Your task to perform on an android device: Open Yahoo.com Image 0: 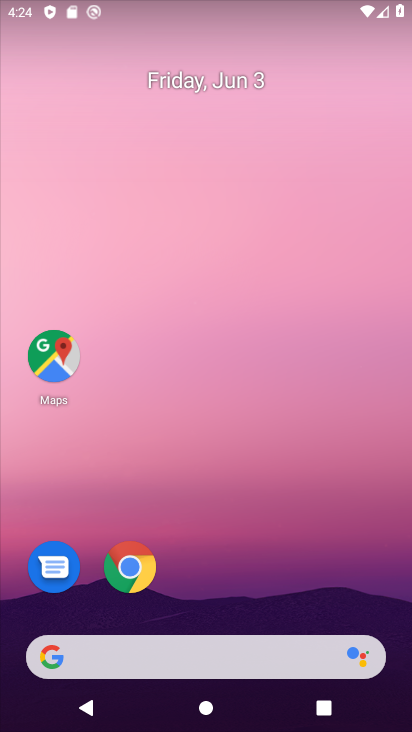
Step 0: click (131, 567)
Your task to perform on an android device: Open Yahoo.com Image 1: 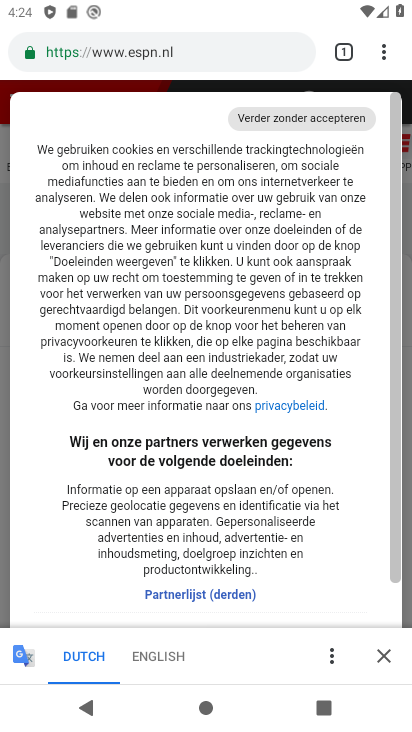
Step 1: click (206, 46)
Your task to perform on an android device: Open Yahoo.com Image 2: 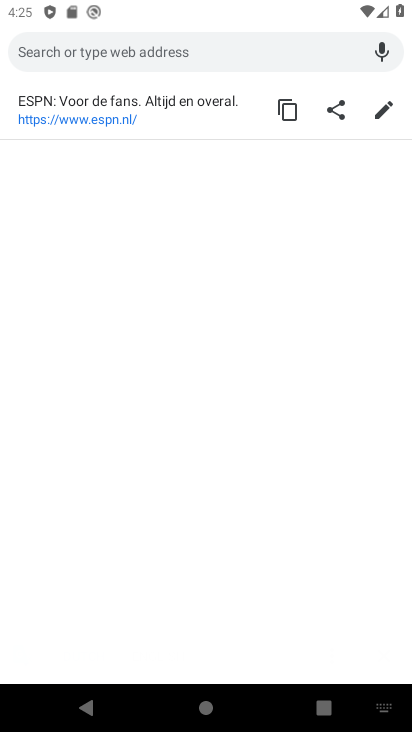
Step 2: type "Yahoo.com"
Your task to perform on an android device: Open Yahoo.com Image 3: 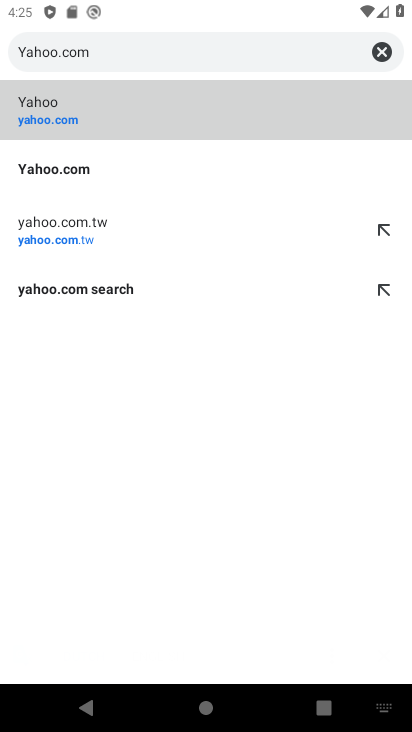
Step 3: click (78, 175)
Your task to perform on an android device: Open Yahoo.com Image 4: 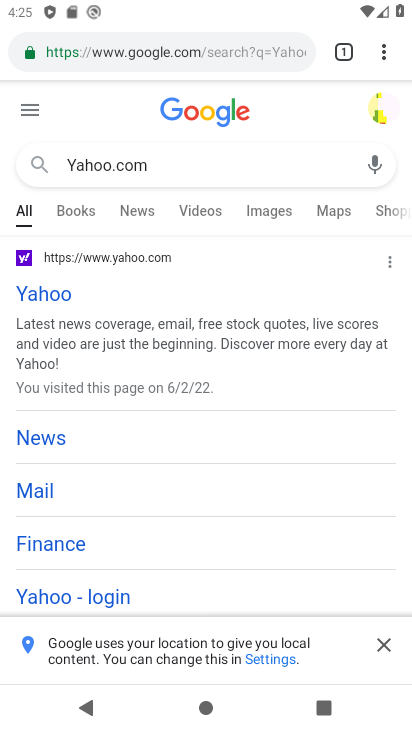
Step 4: click (62, 298)
Your task to perform on an android device: Open Yahoo.com Image 5: 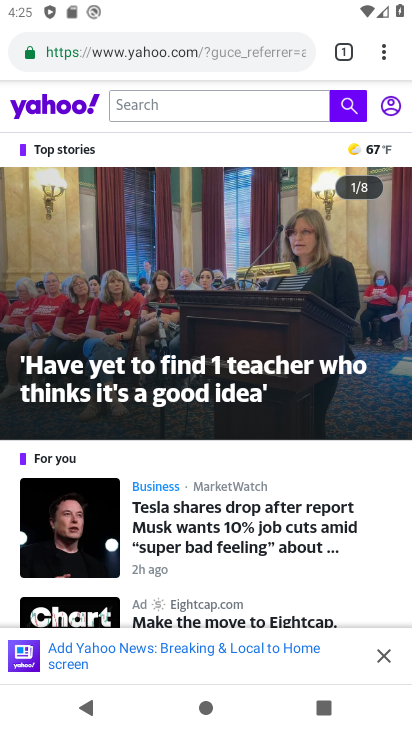
Step 5: task complete